Your task to perform on an android device: open the mobile data screen to see how much data has been used Image 0: 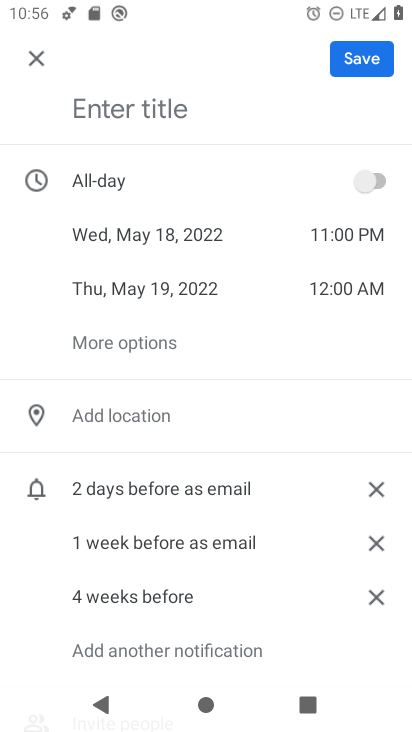
Step 0: press home button
Your task to perform on an android device: open the mobile data screen to see how much data has been used Image 1: 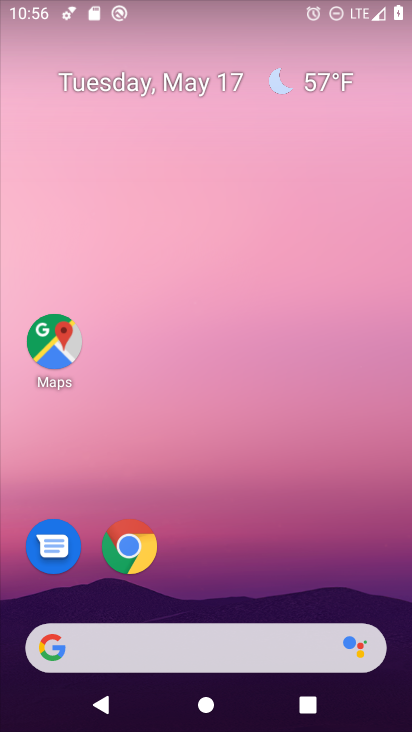
Step 1: drag from (283, 594) to (353, 0)
Your task to perform on an android device: open the mobile data screen to see how much data has been used Image 2: 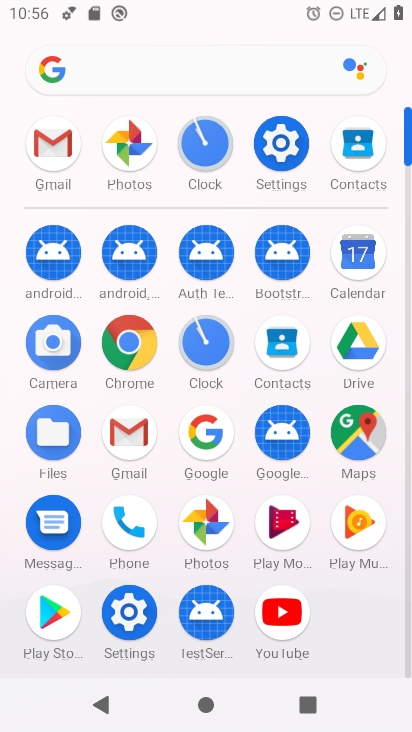
Step 2: click (275, 147)
Your task to perform on an android device: open the mobile data screen to see how much data has been used Image 3: 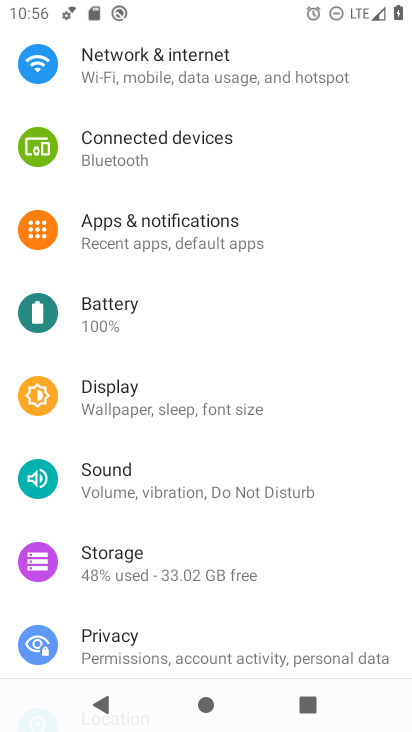
Step 3: click (173, 73)
Your task to perform on an android device: open the mobile data screen to see how much data has been used Image 4: 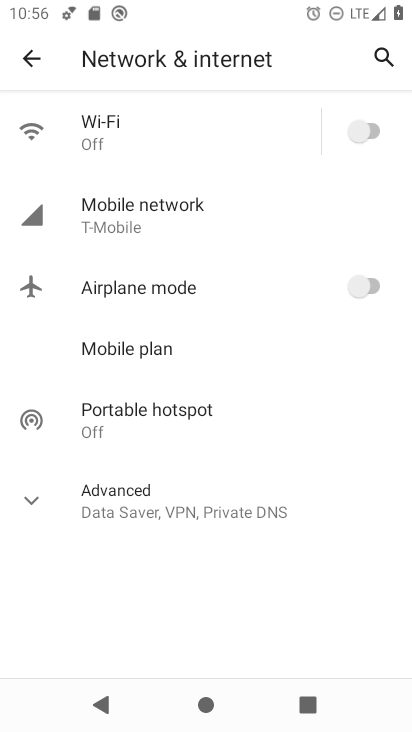
Step 4: click (118, 207)
Your task to perform on an android device: open the mobile data screen to see how much data has been used Image 5: 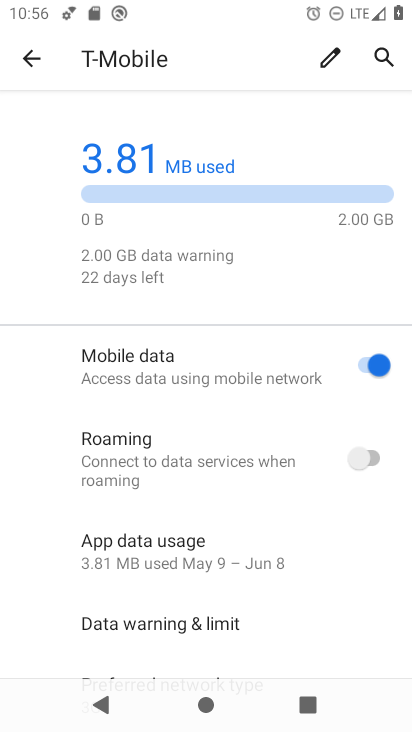
Step 5: click (143, 557)
Your task to perform on an android device: open the mobile data screen to see how much data has been used Image 6: 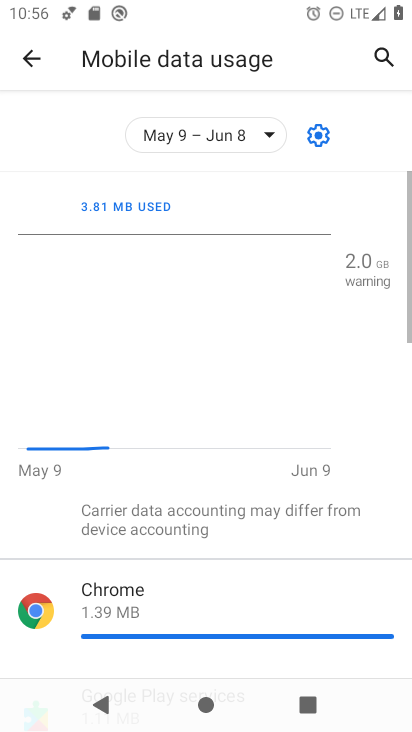
Step 6: task complete